Your task to perform on an android device: remove spam from my inbox in the gmail app Image 0: 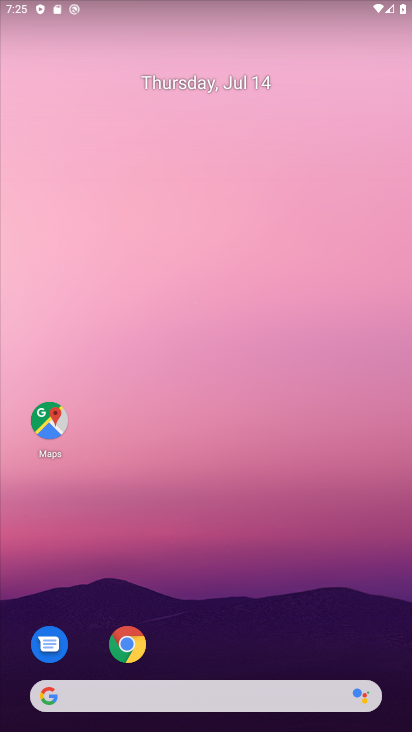
Step 0: drag from (197, 697) to (248, 189)
Your task to perform on an android device: remove spam from my inbox in the gmail app Image 1: 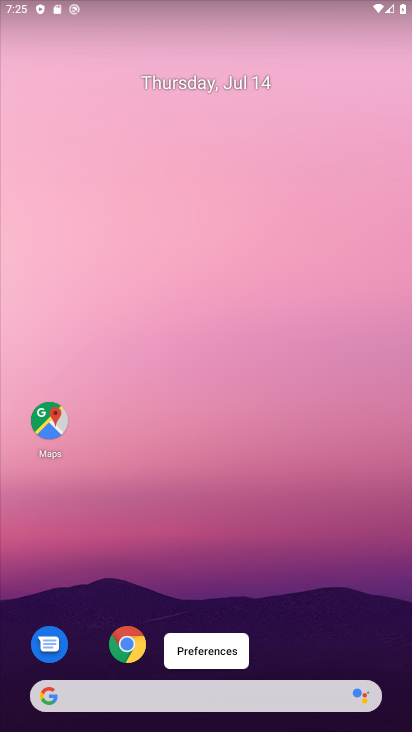
Step 1: drag from (222, 695) to (265, 116)
Your task to perform on an android device: remove spam from my inbox in the gmail app Image 2: 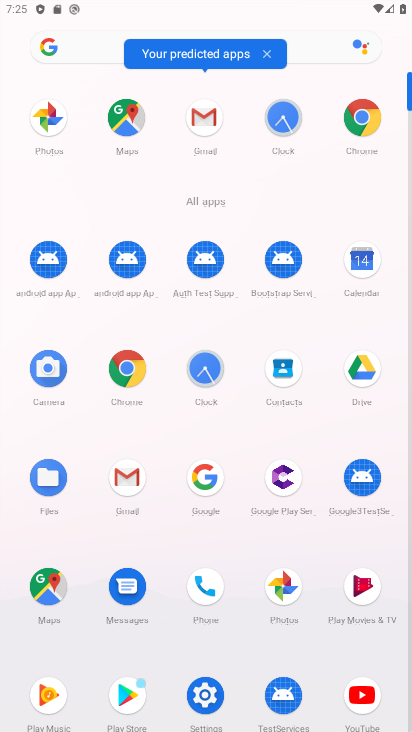
Step 2: click (206, 121)
Your task to perform on an android device: remove spam from my inbox in the gmail app Image 3: 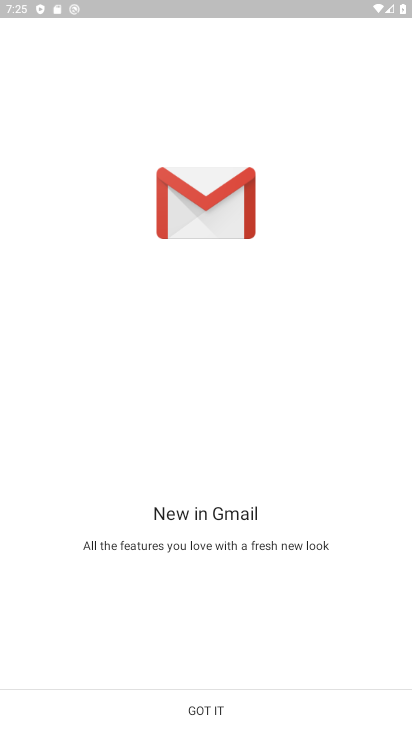
Step 3: click (213, 713)
Your task to perform on an android device: remove spam from my inbox in the gmail app Image 4: 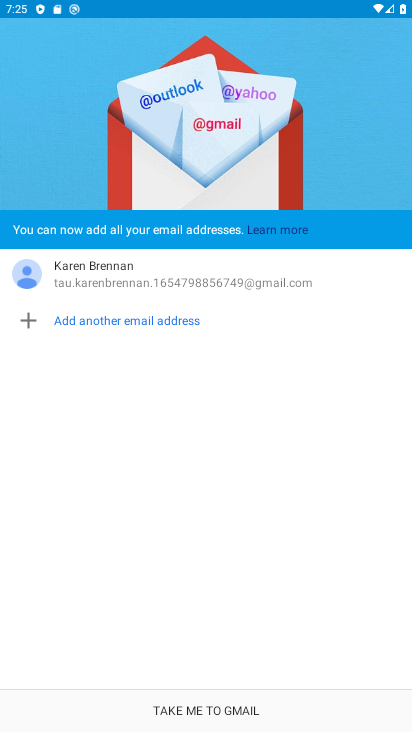
Step 4: click (213, 713)
Your task to perform on an android device: remove spam from my inbox in the gmail app Image 5: 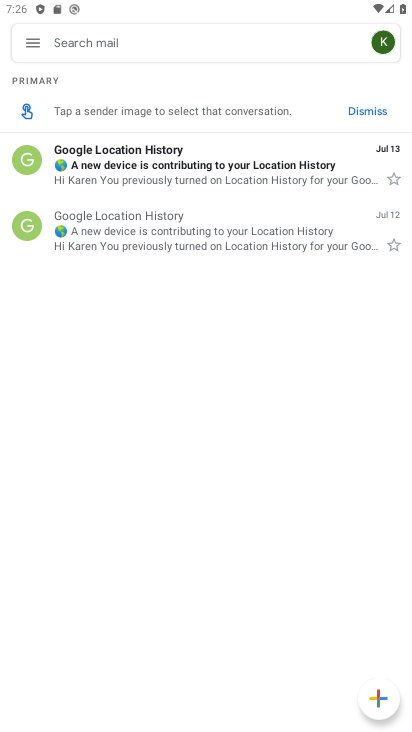
Step 5: click (38, 44)
Your task to perform on an android device: remove spam from my inbox in the gmail app Image 6: 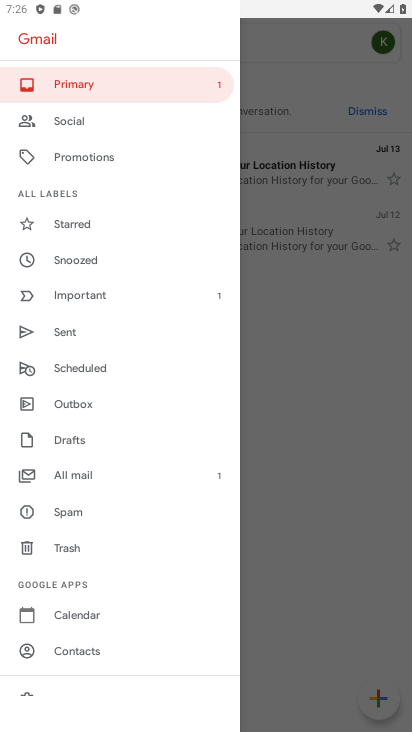
Step 6: click (76, 509)
Your task to perform on an android device: remove spam from my inbox in the gmail app Image 7: 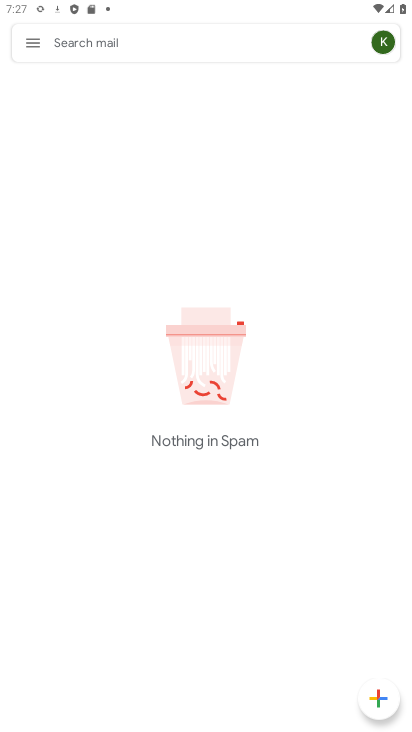
Step 7: task complete